Your task to perform on an android device: Open eBay Image 0: 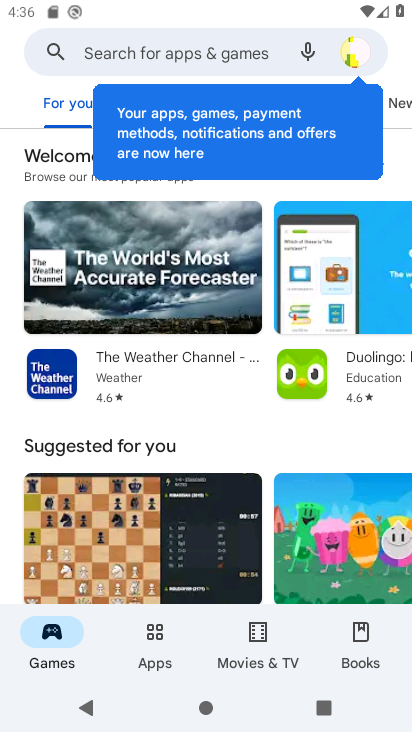
Step 0: press back button
Your task to perform on an android device: Open eBay Image 1: 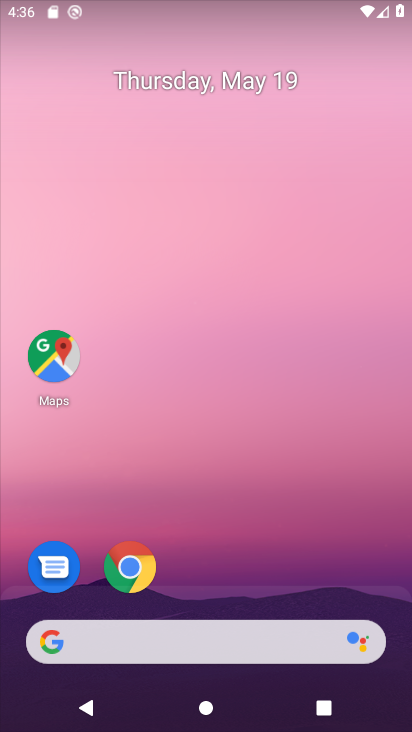
Step 1: click (128, 564)
Your task to perform on an android device: Open eBay Image 2: 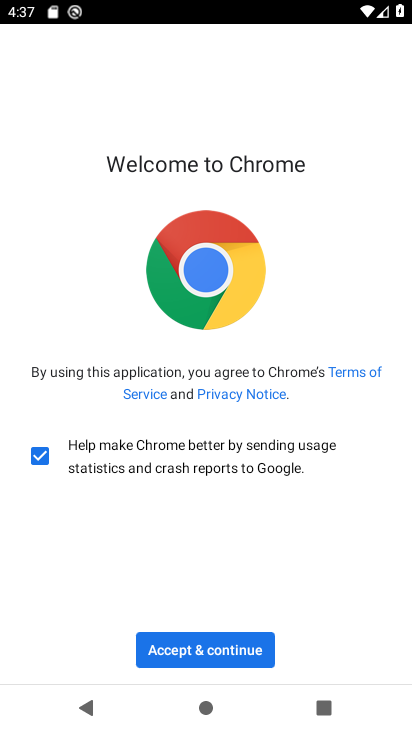
Step 2: click (176, 643)
Your task to perform on an android device: Open eBay Image 3: 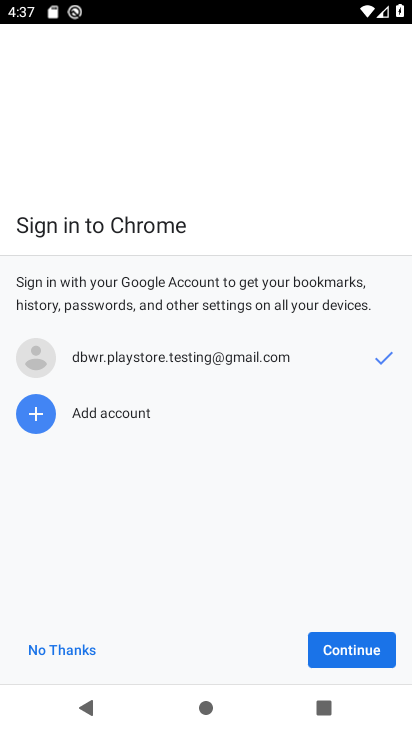
Step 3: click (347, 642)
Your task to perform on an android device: Open eBay Image 4: 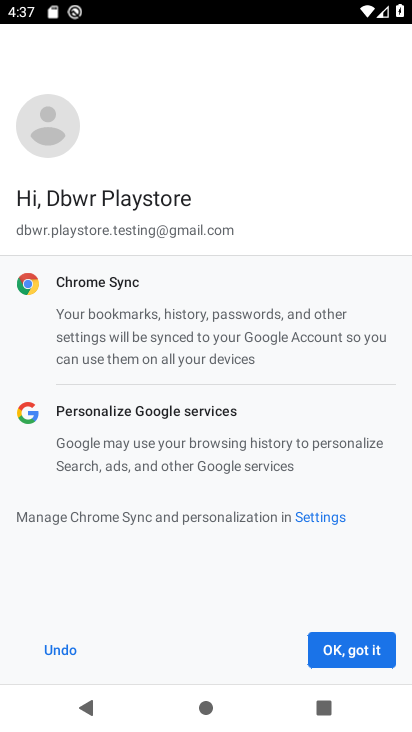
Step 4: click (347, 642)
Your task to perform on an android device: Open eBay Image 5: 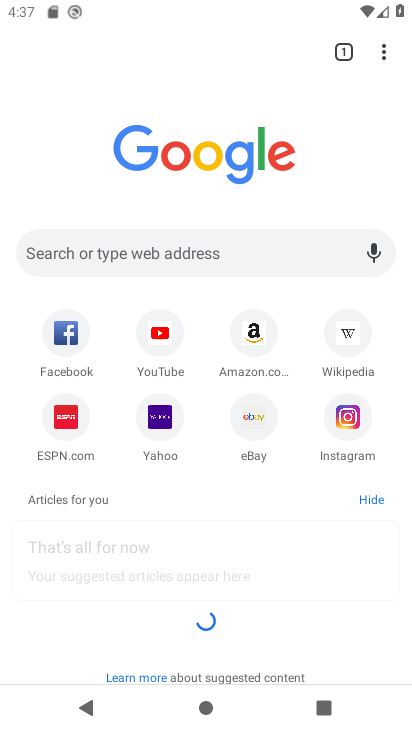
Step 5: click (201, 248)
Your task to perform on an android device: Open eBay Image 6: 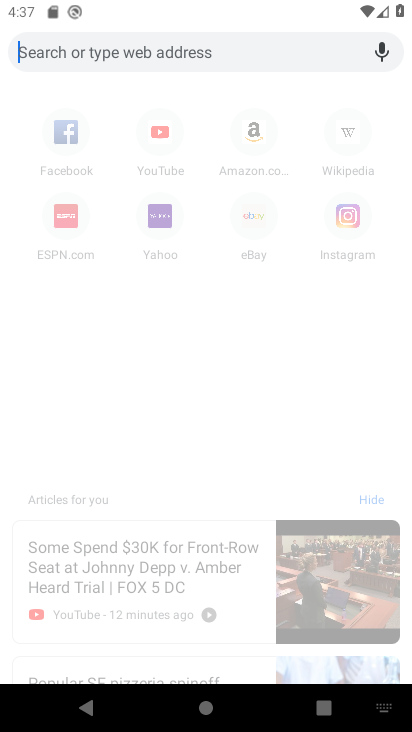
Step 6: type "eBay"
Your task to perform on an android device: Open eBay Image 7: 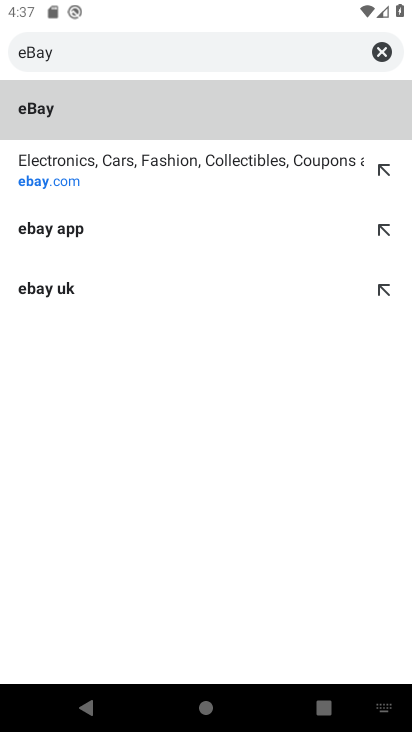
Step 7: click (85, 121)
Your task to perform on an android device: Open eBay Image 8: 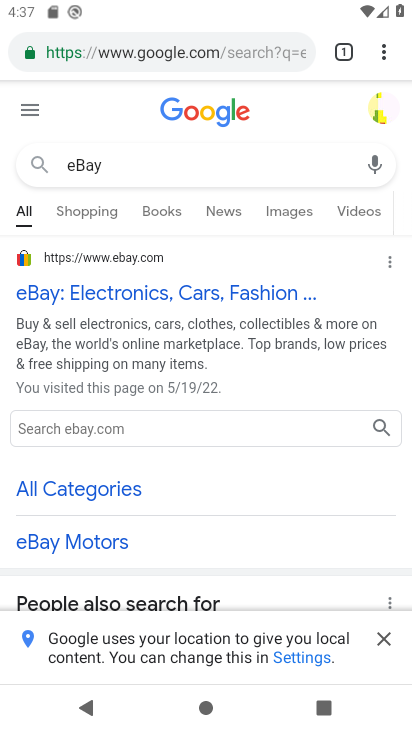
Step 8: click (149, 289)
Your task to perform on an android device: Open eBay Image 9: 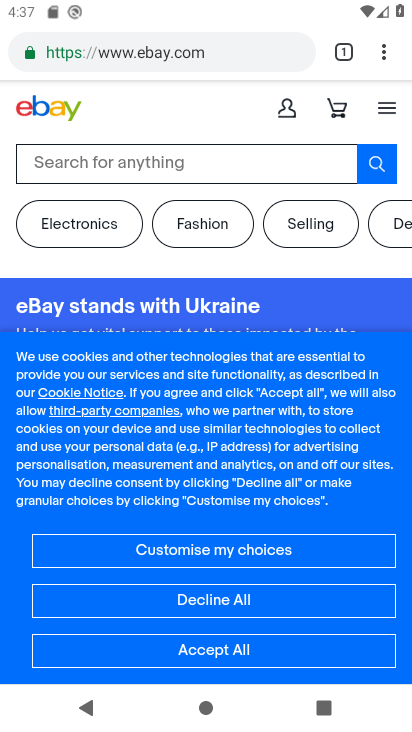
Step 9: task complete